Your task to perform on an android device: turn off notifications settings in the gmail app Image 0: 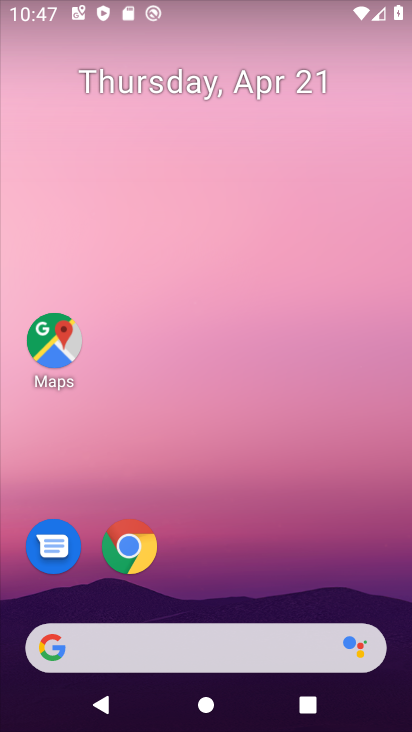
Step 0: drag from (251, 536) to (250, 94)
Your task to perform on an android device: turn off notifications settings in the gmail app Image 1: 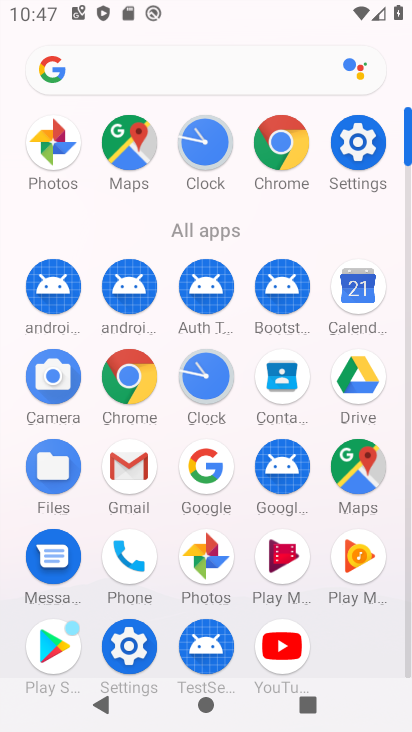
Step 1: click (127, 650)
Your task to perform on an android device: turn off notifications settings in the gmail app Image 2: 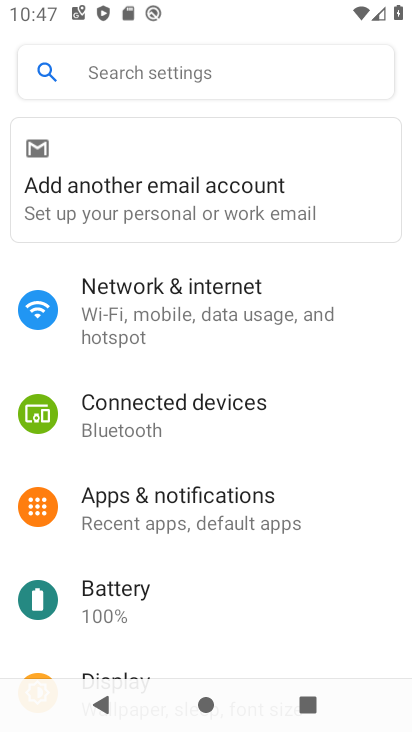
Step 2: click (199, 502)
Your task to perform on an android device: turn off notifications settings in the gmail app Image 3: 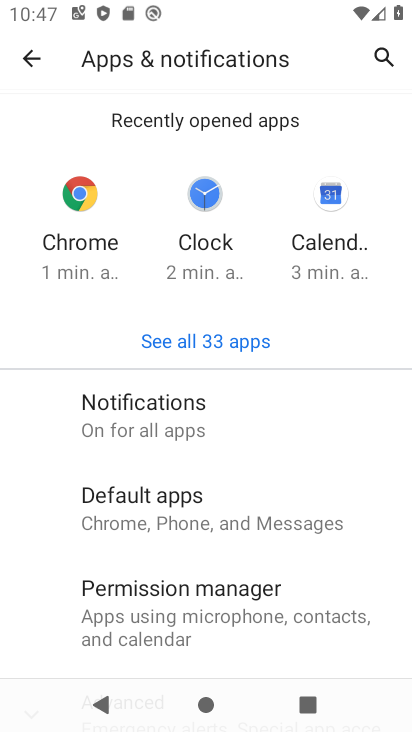
Step 3: click (208, 338)
Your task to perform on an android device: turn off notifications settings in the gmail app Image 4: 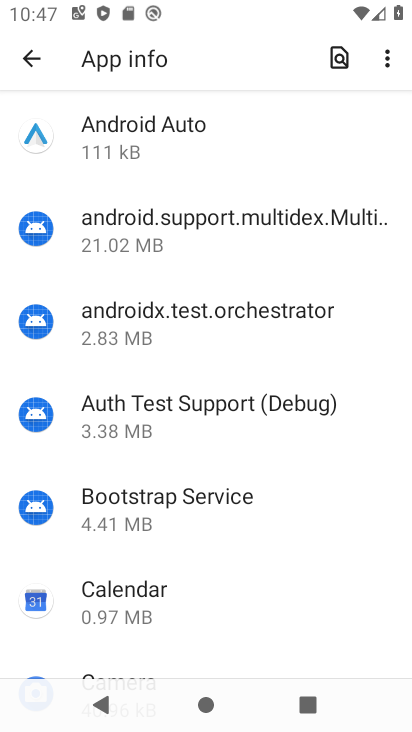
Step 4: drag from (199, 557) to (241, 114)
Your task to perform on an android device: turn off notifications settings in the gmail app Image 5: 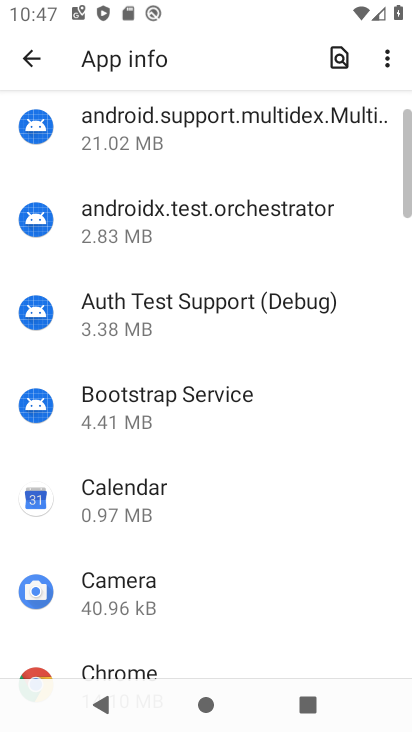
Step 5: drag from (163, 603) to (217, 118)
Your task to perform on an android device: turn off notifications settings in the gmail app Image 6: 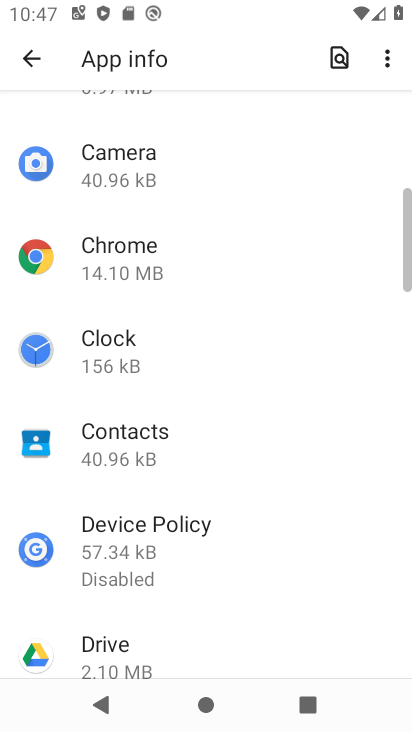
Step 6: drag from (166, 578) to (246, 181)
Your task to perform on an android device: turn off notifications settings in the gmail app Image 7: 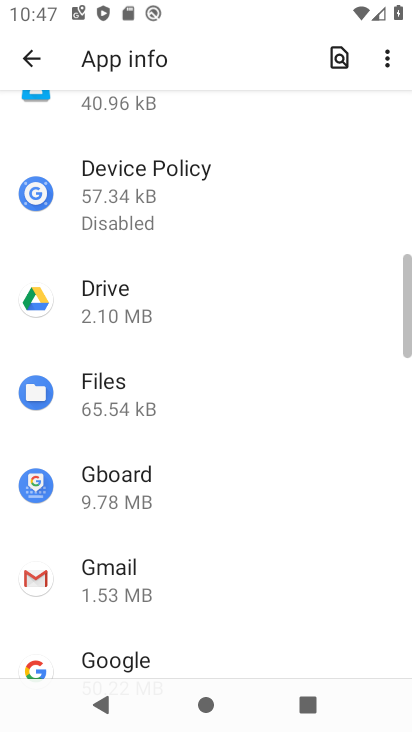
Step 7: click (121, 583)
Your task to perform on an android device: turn off notifications settings in the gmail app Image 8: 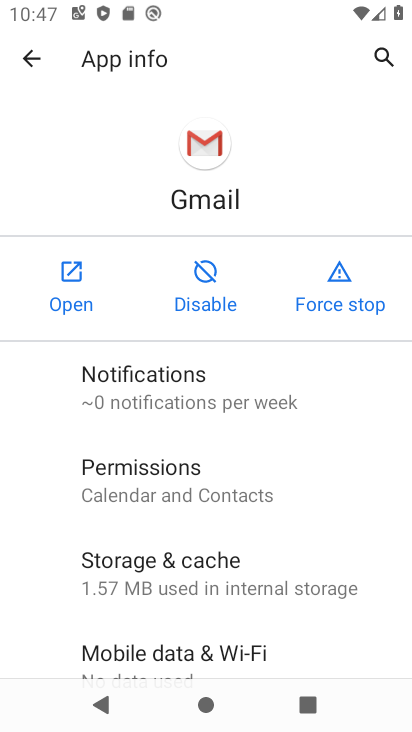
Step 8: click (121, 362)
Your task to perform on an android device: turn off notifications settings in the gmail app Image 9: 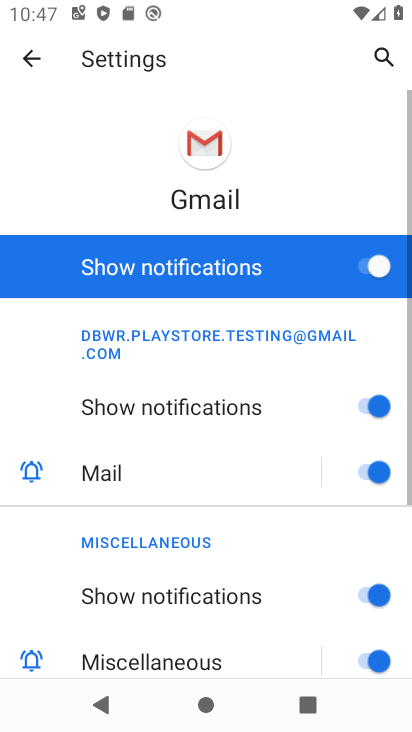
Step 9: click (357, 248)
Your task to perform on an android device: turn off notifications settings in the gmail app Image 10: 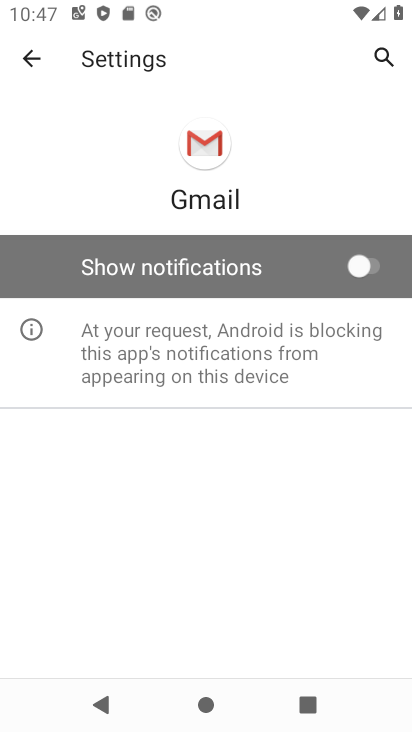
Step 10: task complete